Your task to perform on an android device: turn off sleep mode Image 0: 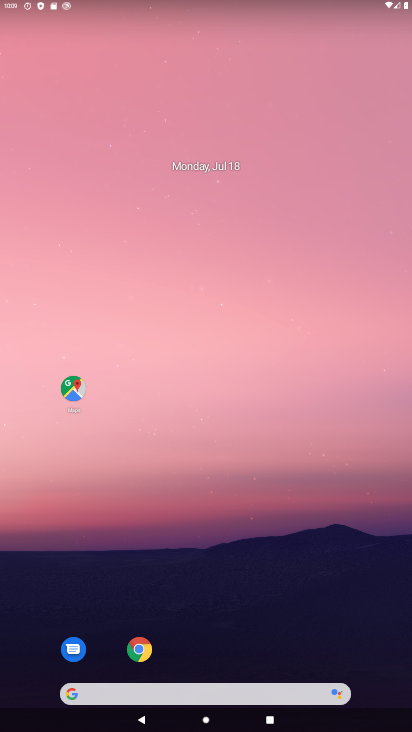
Step 0: click (336, 337)
Your task to perform on an android device: turn off sleep mode Image 1: 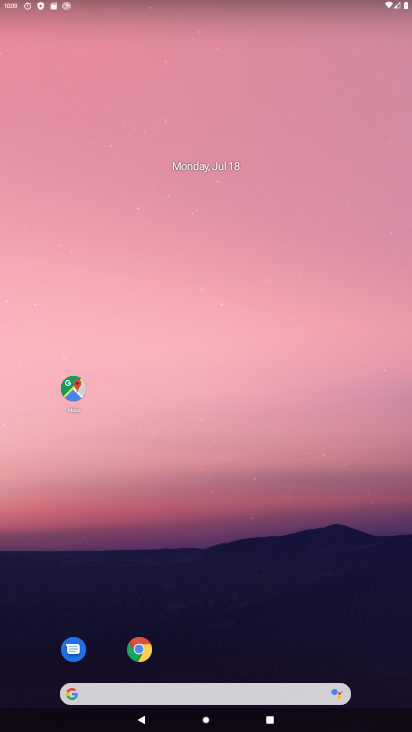
Step 1: task complete